Your task to perform on an android device: Open Reddit.com Image 0: 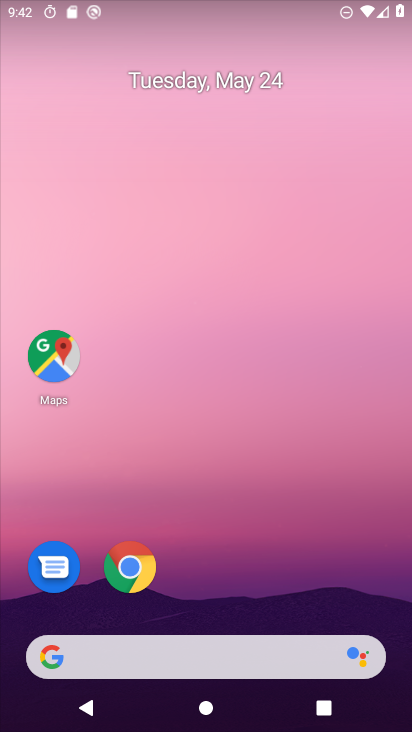
Step 0: click (247, 640)
Your task to perform on an android device: Open Reddit.com Image 1: 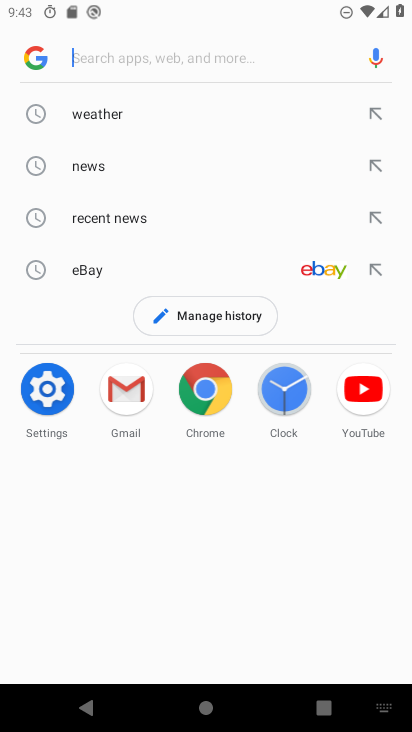
Step 1: type "Reddit.com"
Your task to perform on an android device: Open Reddit.com Image 2: 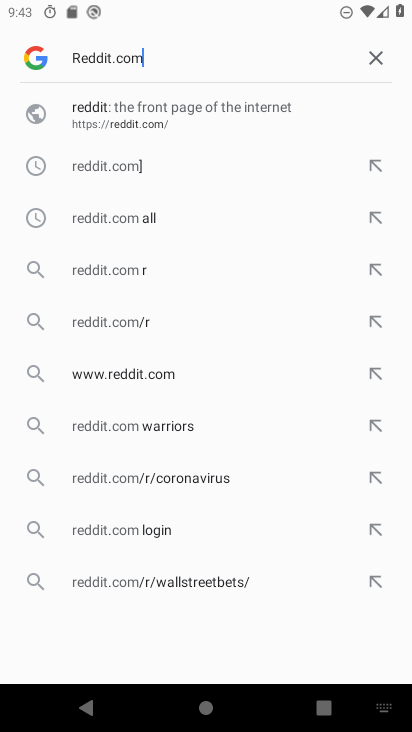
Step 2: click (211, 96)
Your task to perform on an android device: Open Reddit.com Image 3: 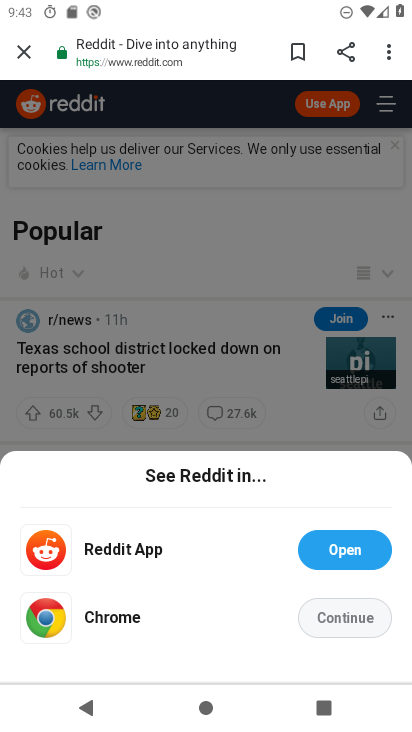
Step 3: click (354, 620)
Your task to perform on an android device: Open Reddit.com Image 4: 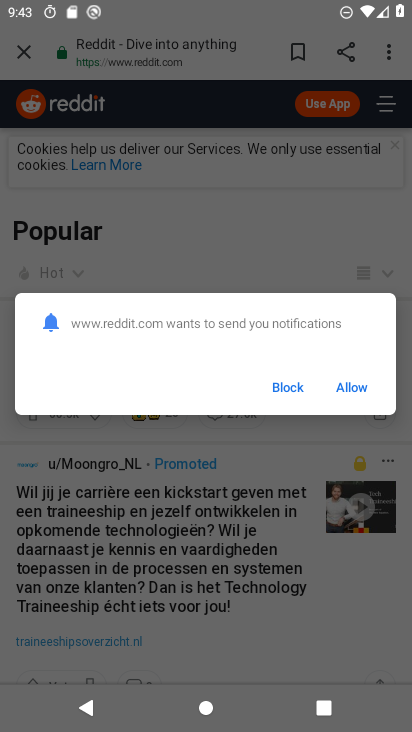
Step 4: click (370, 396)
Your task to perform on an android device: Open Reddit.com Image 5: 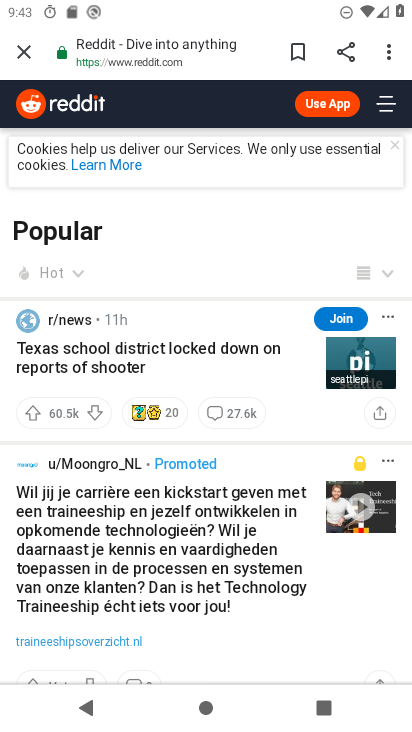
Step 5: task complete